Your task to perform on an android device: Open Amazon Image 0: 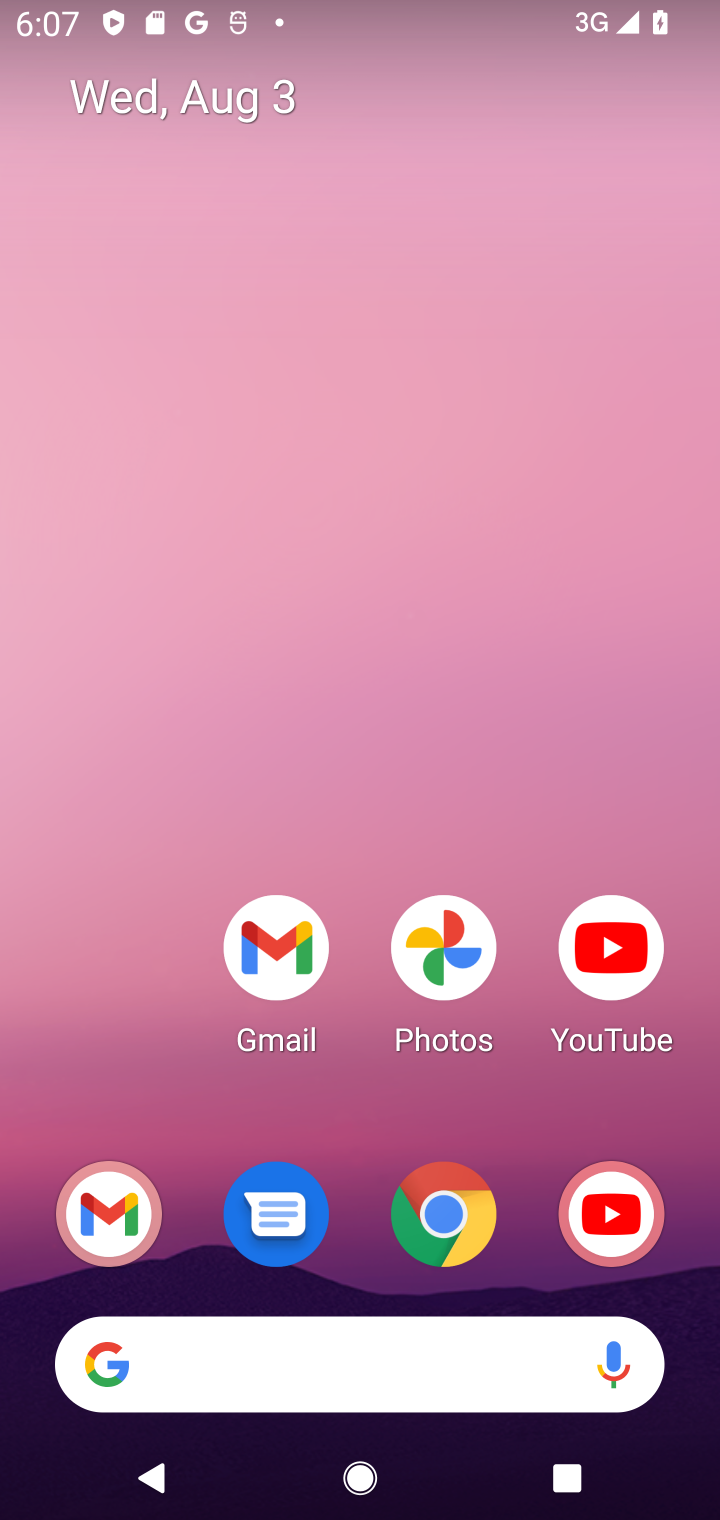
Step 0: click (435, 1201)
Your task to perform on an android device: Open Amazon Image 1: 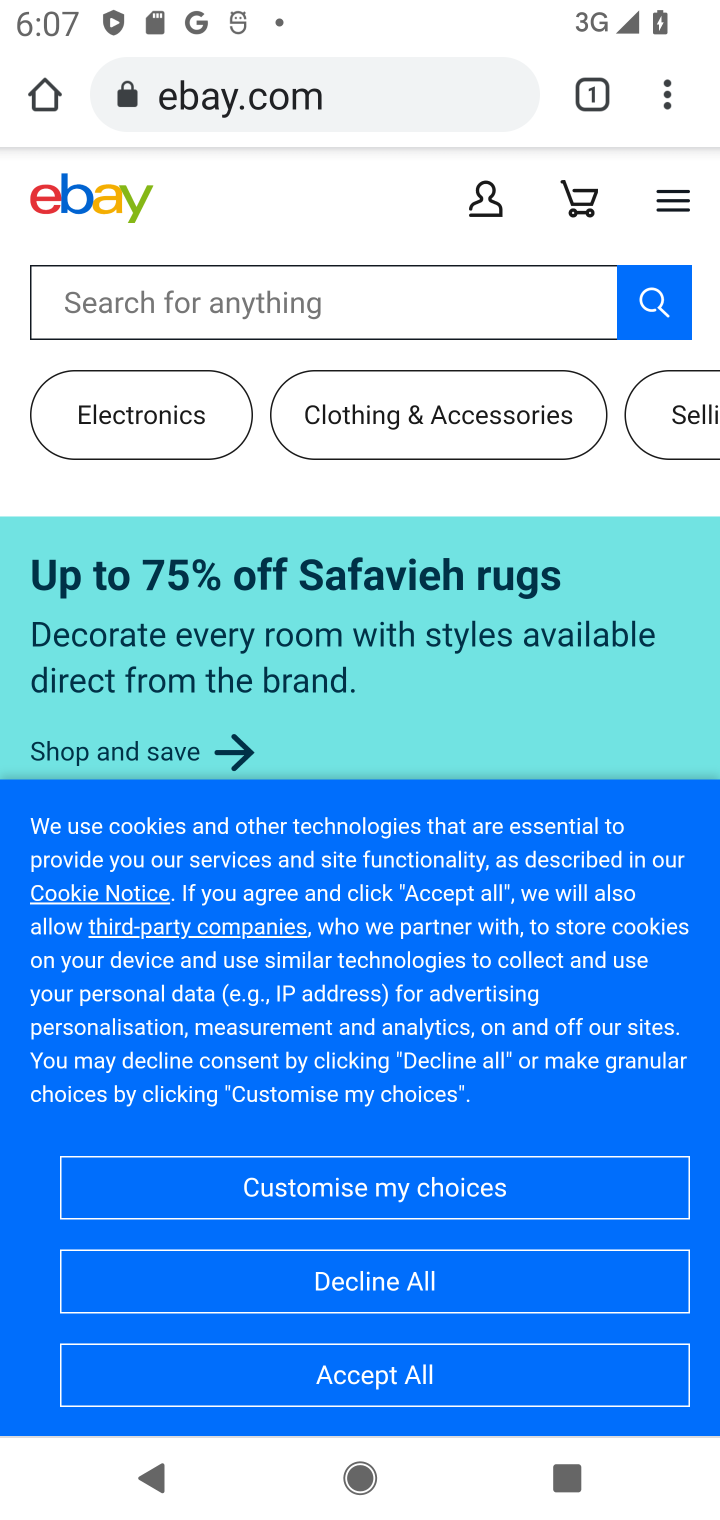
Step 1: click (426, 93)
Your task to perform on an android device: Open Amazon Image 2: 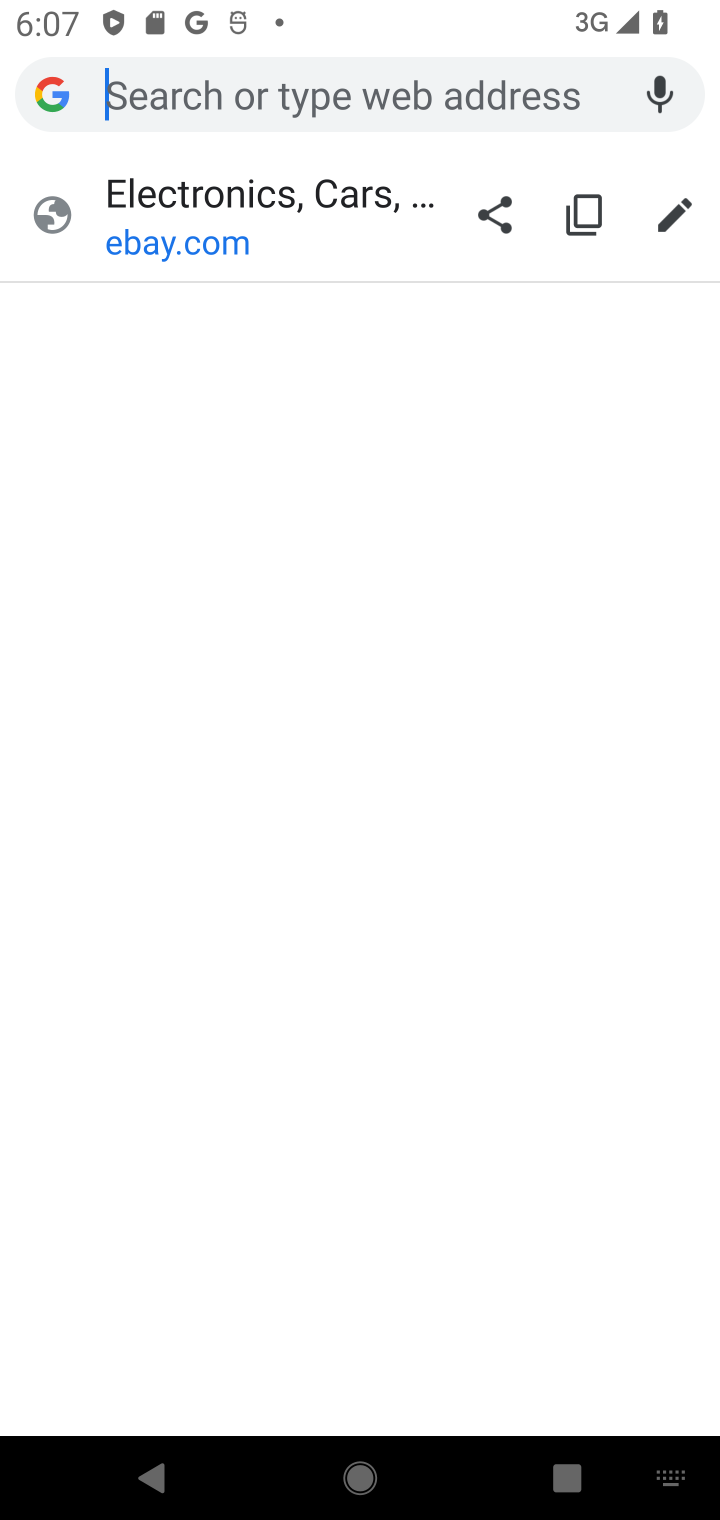
Step 2: type "amazon"
Your task to perform on an android device: Open Amazon Image 3: 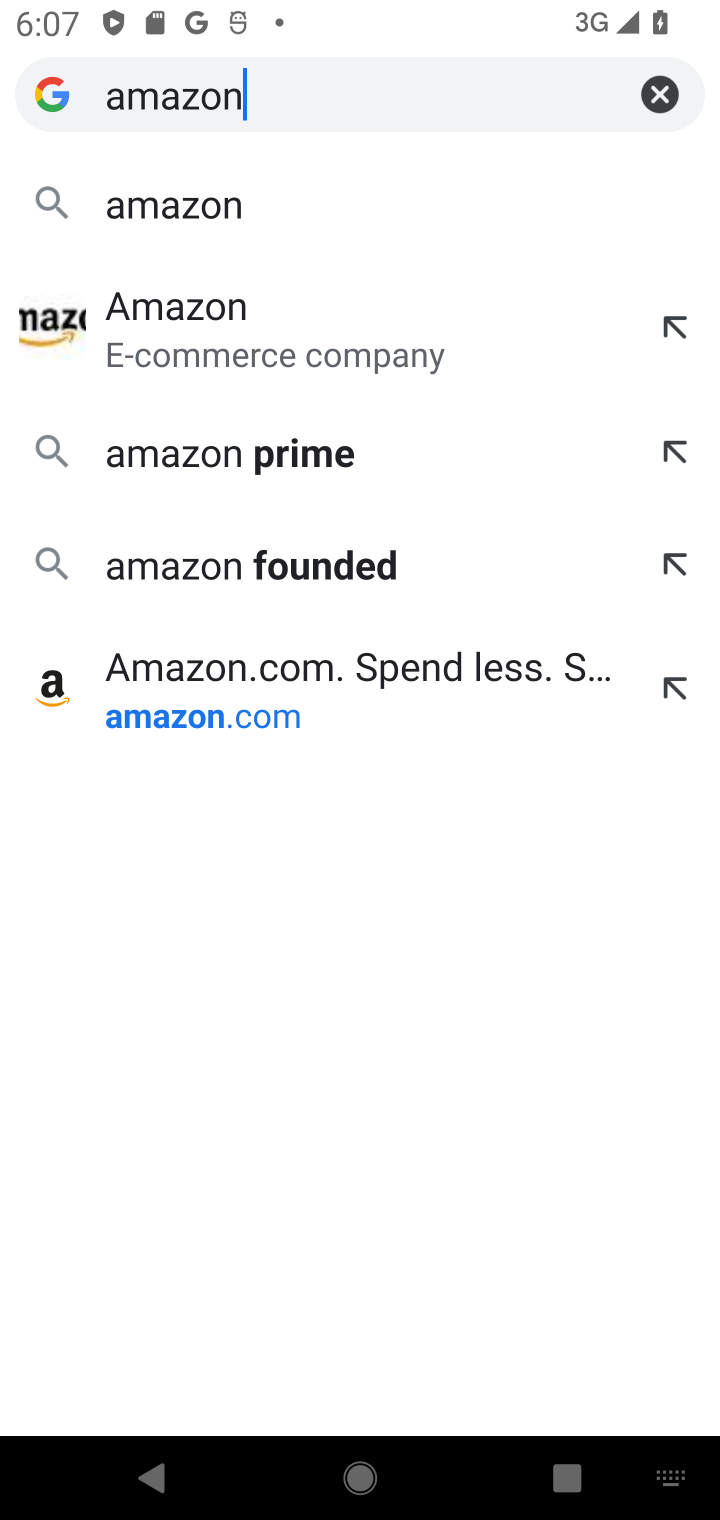
Step 3: click (170, 218)
Your task to perform on an android device: Open Amazon Image 4: 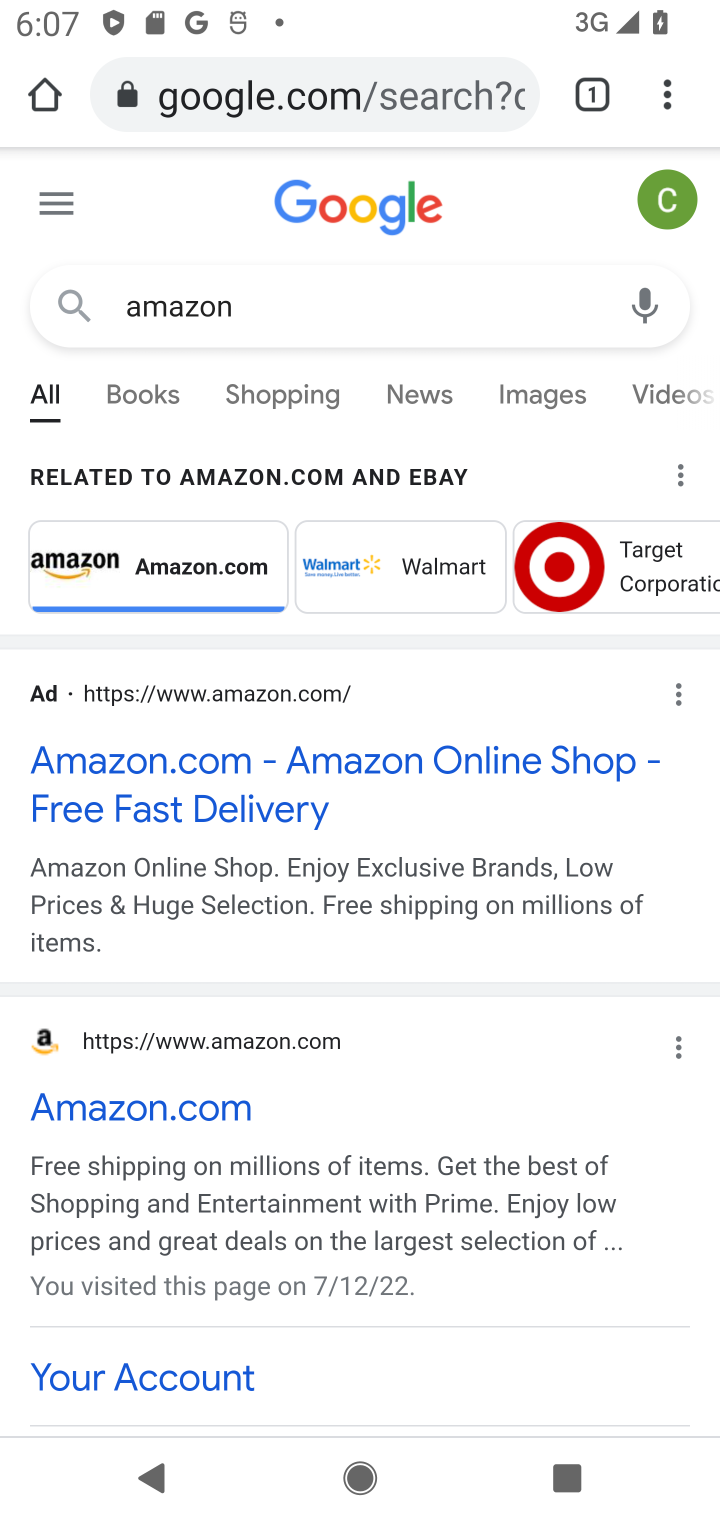
Step 4: click (109, 1096)
Your task to perform on an android device: Open Amazon Image 5: 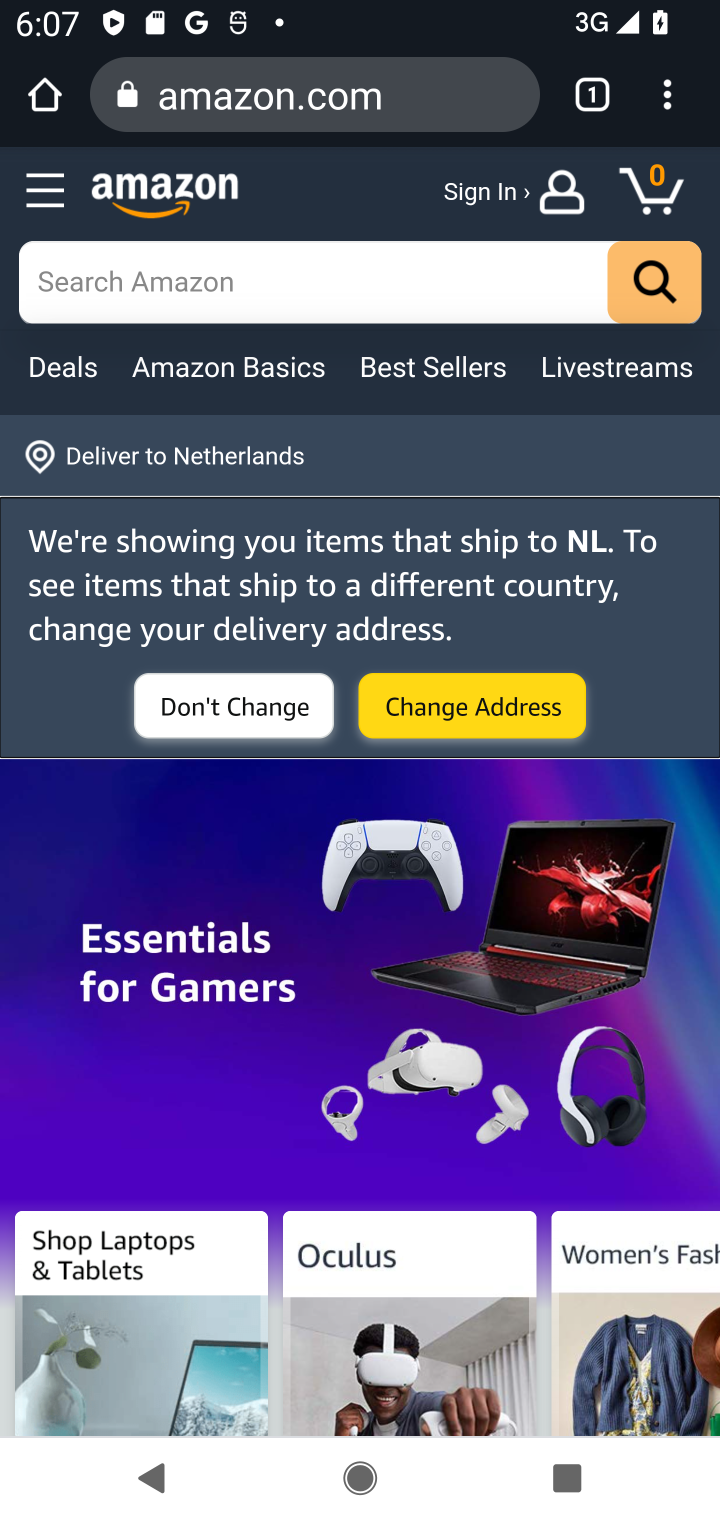
Step 5: task complete